Your task to perform on an android device: What's on my calendar today? Image 0: 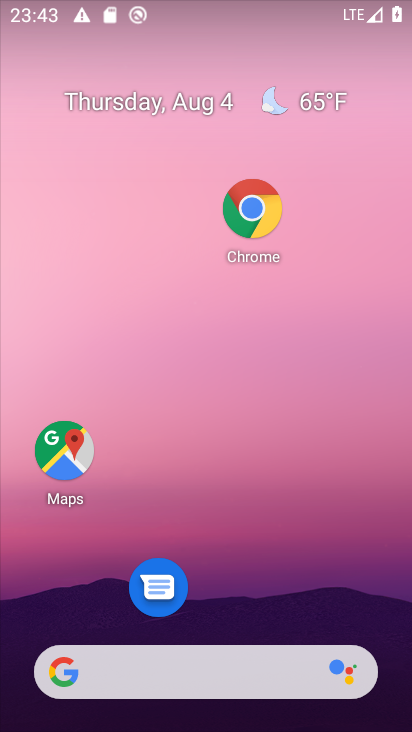
Step 0: drag from (284, 583) to (267, 47)
Your task to perform on an android device: What's on my calendar today? Image 1: 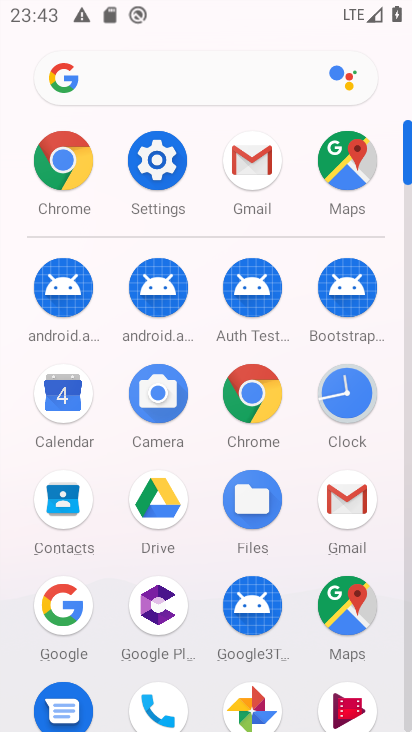
Step 1: click (67, 396)
Your task to perform on an android device: What's on my calendar today? Image 2: 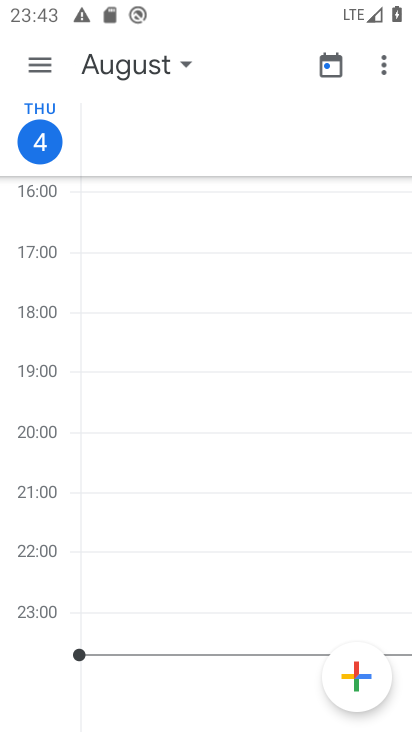
Step 2: click (24, 54)
Your task to perform on an android device: What's on my calendar today? Image 3: 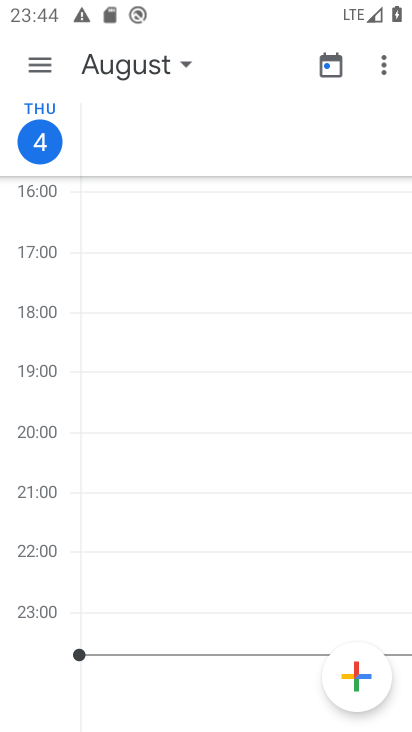
Step 3: click (47, 56)
Your task to perform on an android device: What's on my calendar today? Image 4: 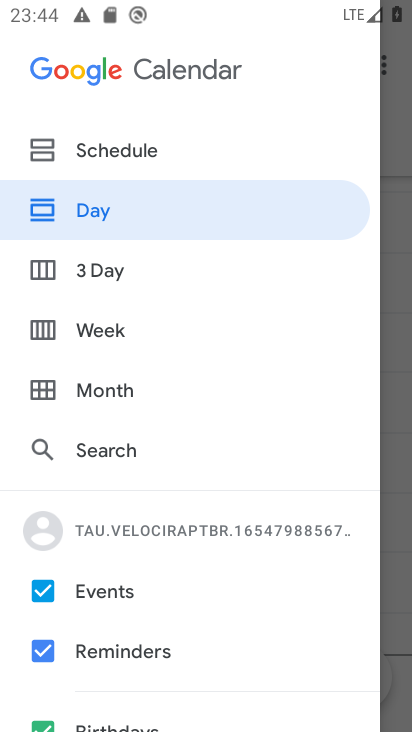
Step 4: click (94, 395)
Your task to perform on an android device: What's on my calendar today? Image 5: 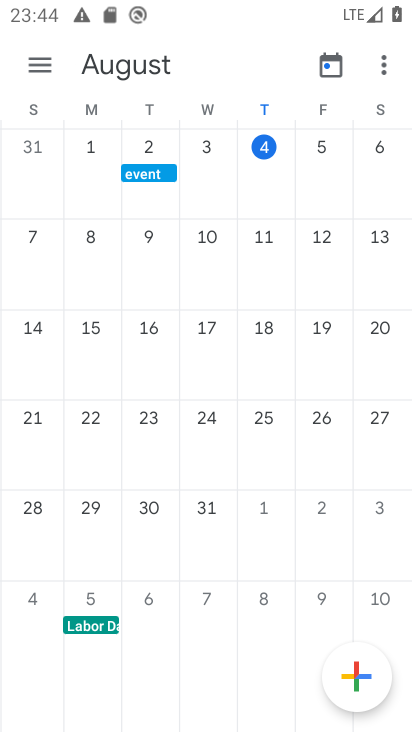
Step 5: click (338, 154)
Your task to perform on an android device: What's on my calendar today? Image 6: 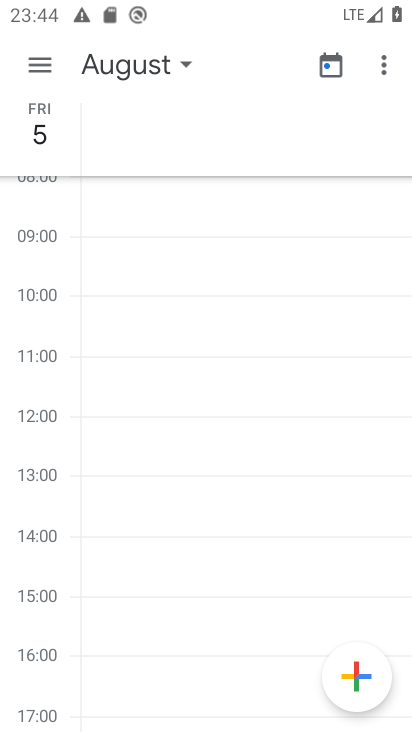
Step 6: task complete